Your task to perform on an android device: Go to Yahoo.com Image 0: 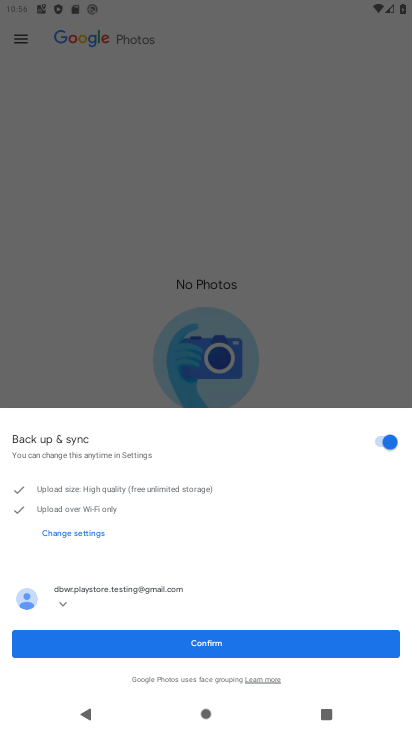
Step 0: press back button
Your task to perform on an android device: Go to Yahoo.com Image 1: 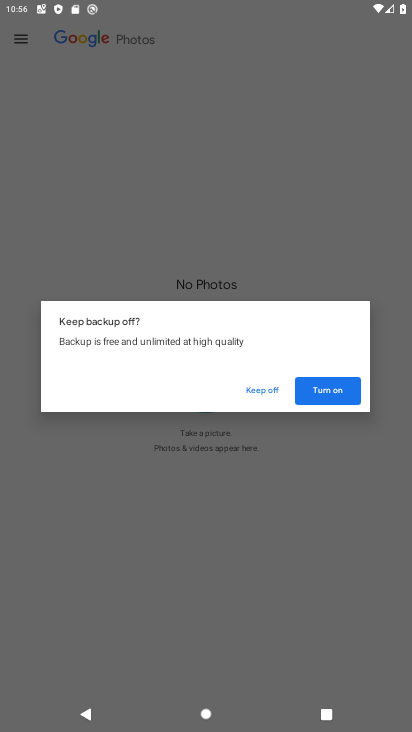
Step 1: press home button
Your task to perform on an android device: Go to Yahoo.com Image 2: 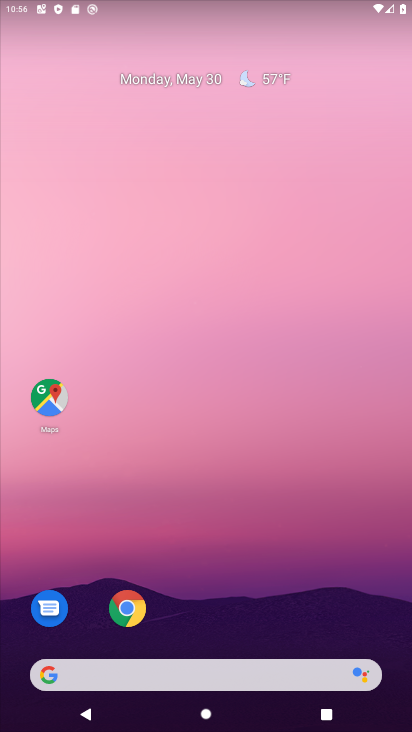
Step 2: drag from (251, 400) to (236, 28)
Your task to perform on an android device: Go to Yahoo.com Image 3: 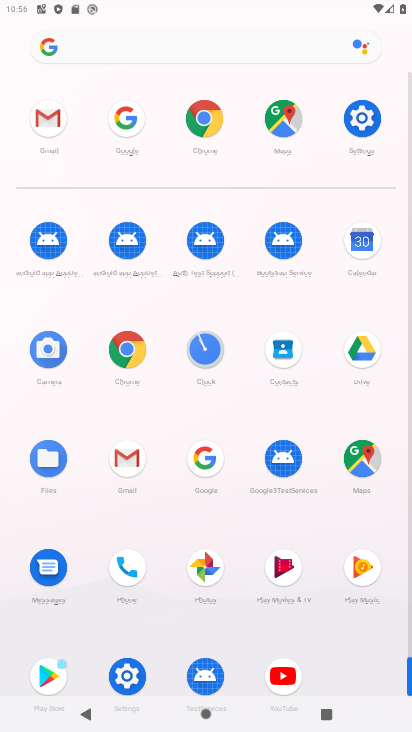
Step 3: click (200, 117)
Your task to perform on an android device: Go to Yahoo.com Image 4: 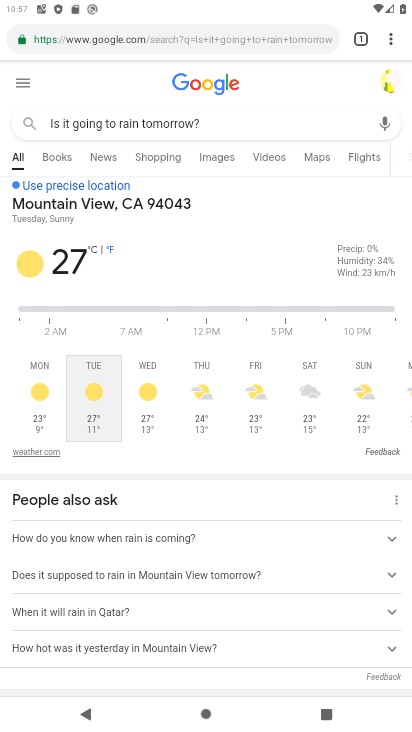
Step 4: click (184, 39)
Your task to perform on an android device: Go to Yahoo.com Image 5: 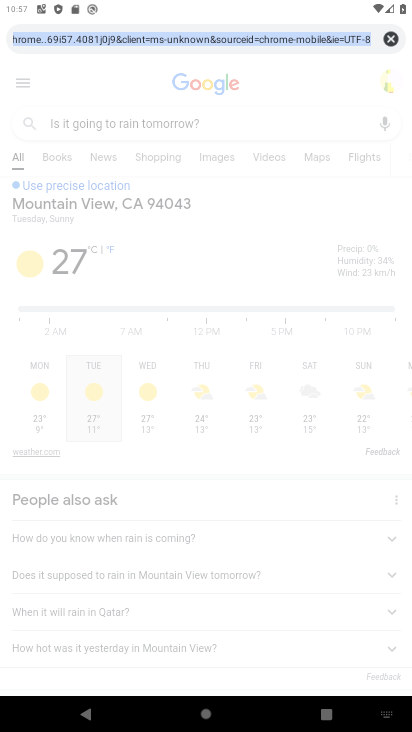
Step 5: click (388, 37)
Your task to perform on an android device: Go to Yahoo.com Image 6: 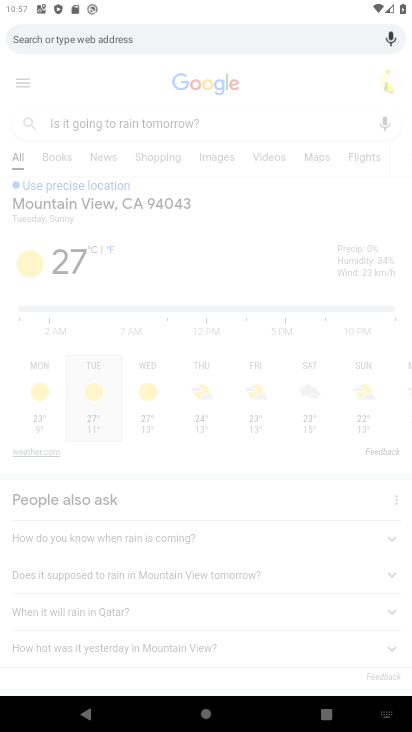
Step 6: type "Yahoo.com"
Your task to perform on an android device: Go to Yahoo.com Image 7: 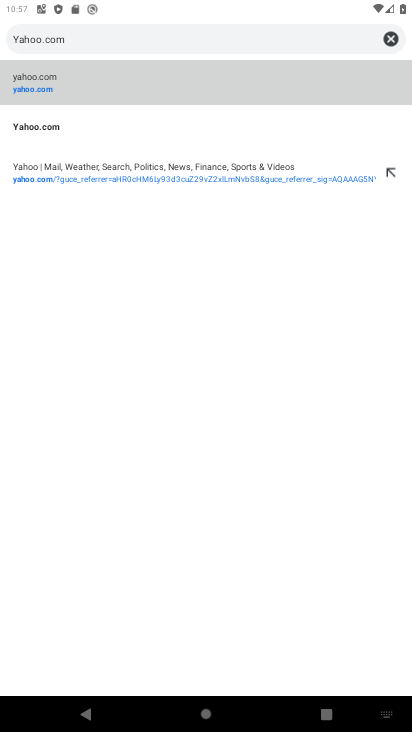
Step 7: click (88, 93)
Your task to perform on an android device: Go to Yahoo.com Image 8: 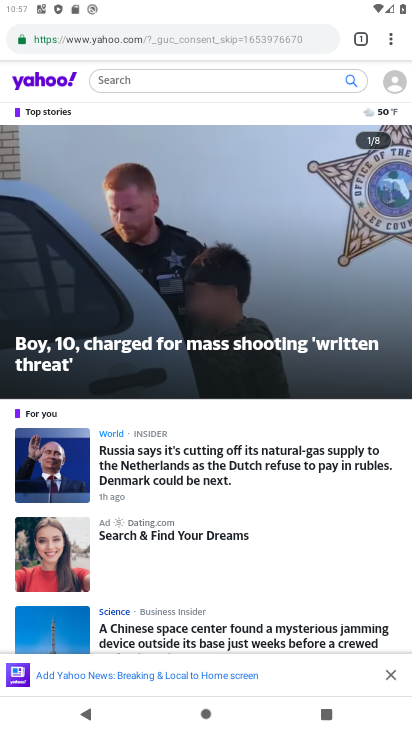
Step 8: task complete